Your task to perform on an android device: Go to Google maps Image 0: 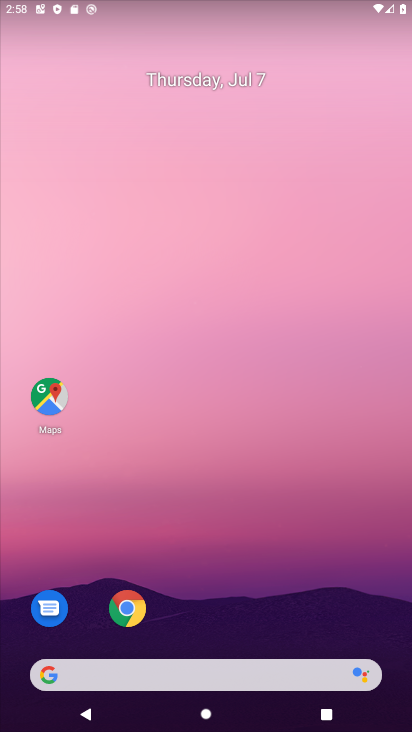
Step 0: drag from (233, 644) to (287, 11)
Your task to perform on an android device: Go to Google maps Image 1: 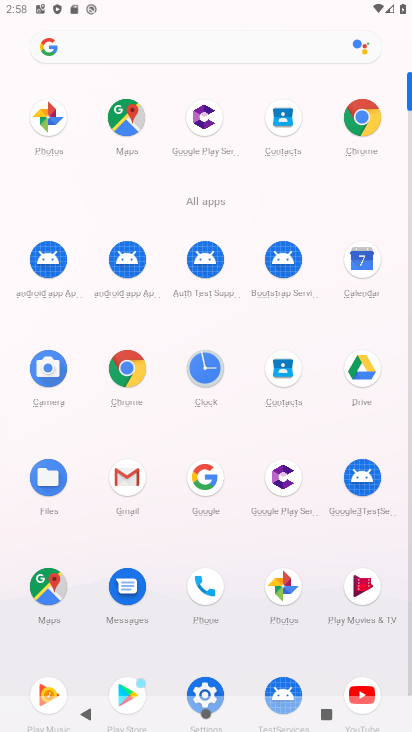
Step 1: click (47, 582)
Your task to perform on an android device: Go to Google maps Image 2: 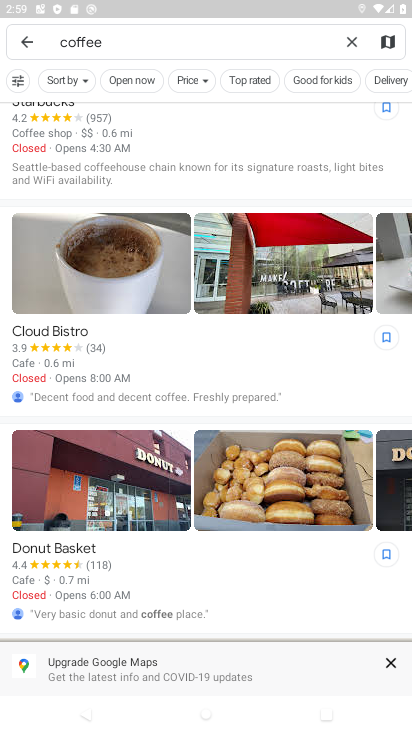
Step 2: click (29, 41)
Your task to perform on an android device: Go to Google maps Image 3: 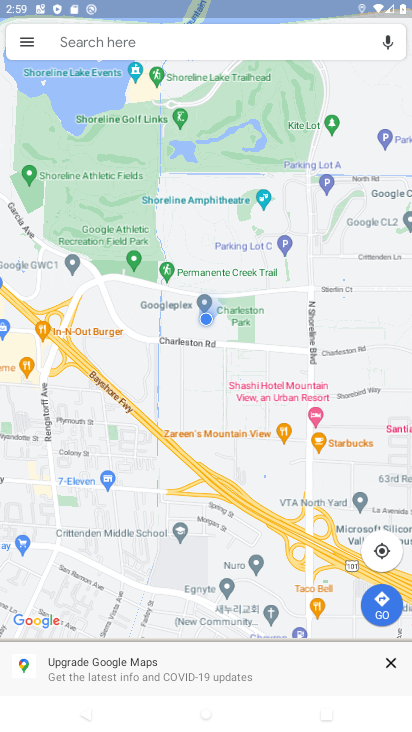
Step 3: click (390, 666)
Your task to perform on an android device: Go to Google maps Image 4: 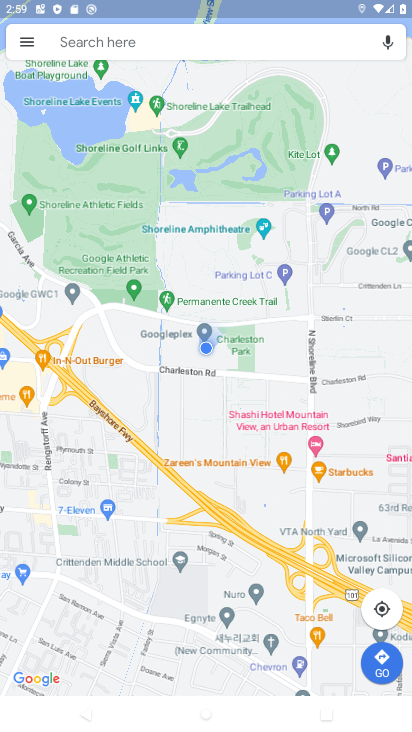
Step 4: task complete